Your task to perform on an android device: Is it going to rain today? Image 0: 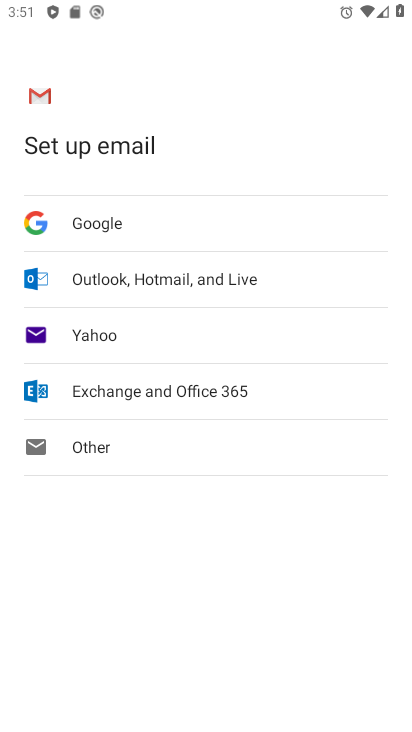
Step 0: press home button
Your task to perform on an android device: Is it going to rain today? Image 1: 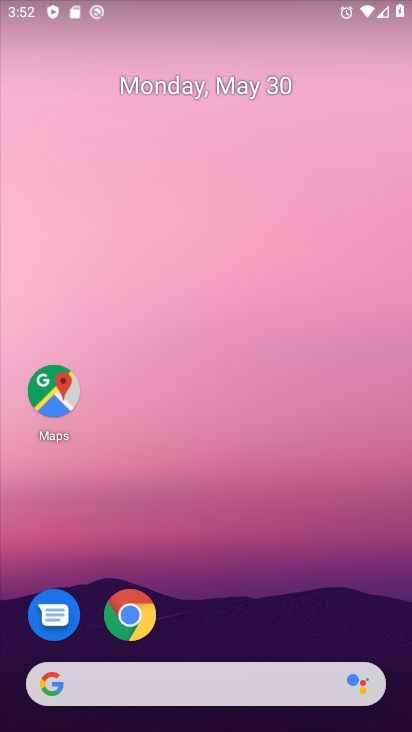
Step 1: click (191, 670)
Your task to perform on an android device: Is it going to rain today? Image 2: 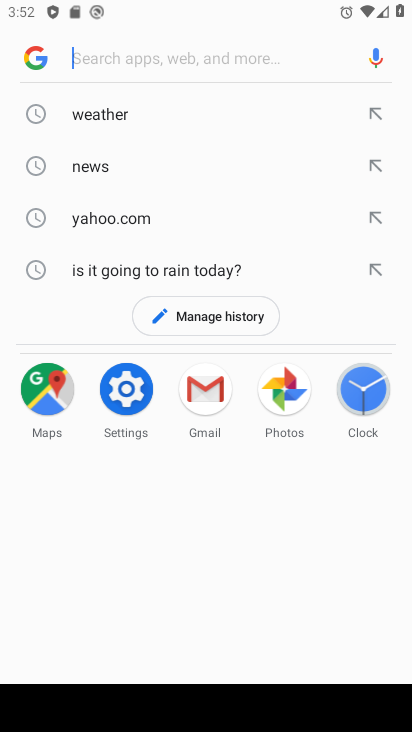
Step 2: click (100, 113)
Your task to perform on an android device: Is it going to rain today? Image 3: 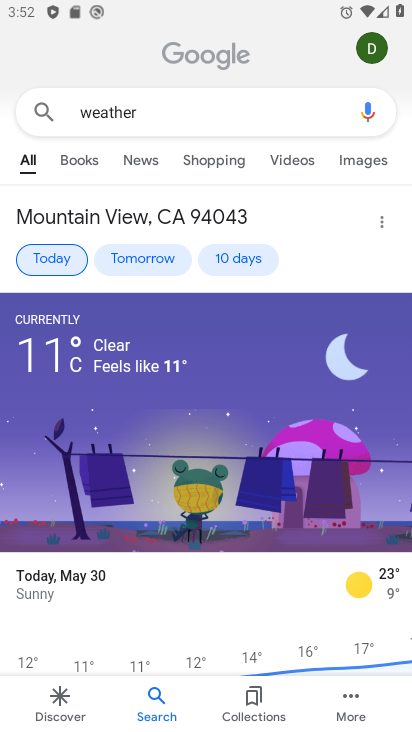
Step 3: click (60, 252)
Your task to perform on an android device: Is it going to rain today? Image 4: 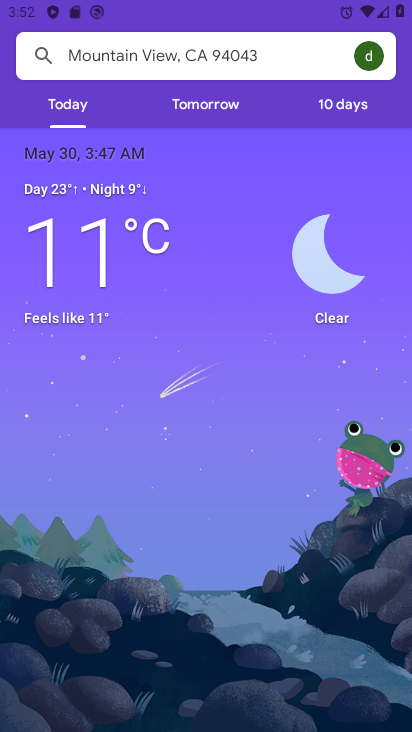
Step 4: task complete